Your task to perform on an android device: Open accessibility settings Image 0: 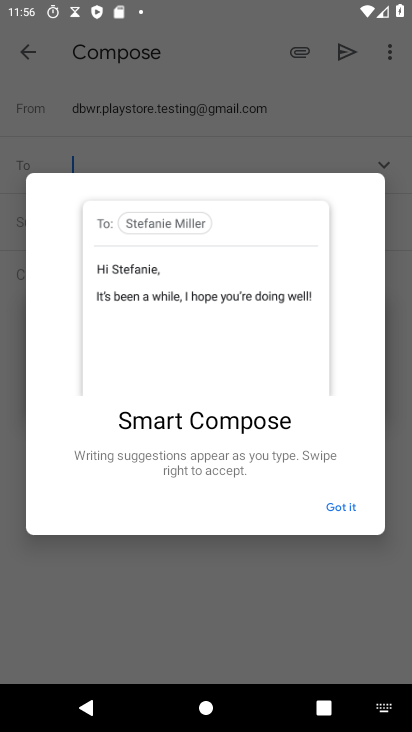
Step 0: press home button
Your task to perform on an android device: Open accessibility settings Image 1: 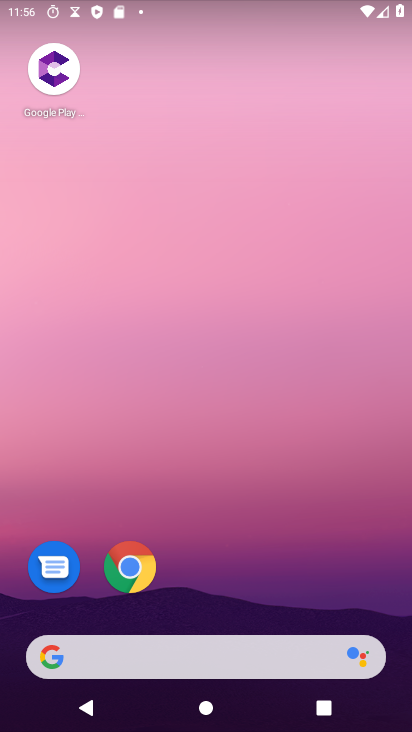
Step 1: drag from (330, 555) to (283, 106)
Your task to perform on an android device: Open accessibility settings Image 2: 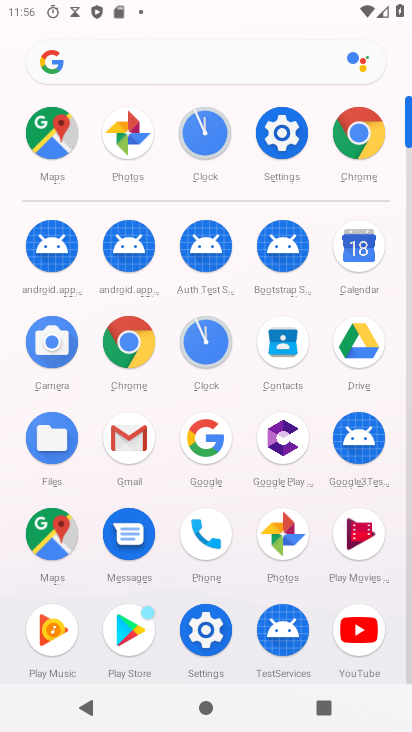
Step 2: click (282, 137)
Your task to perform on an android device: Open accessibility settings Image 3: 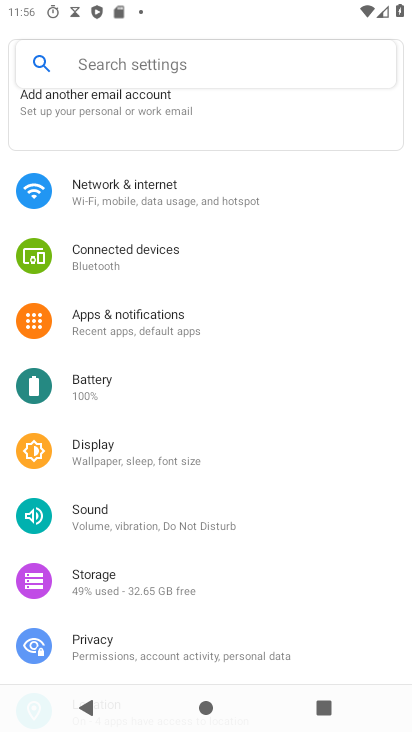
Step 3: drag from (270, 598) to (263, 294)
Your task to perform on an android device: Open accessibility settings Image 4: 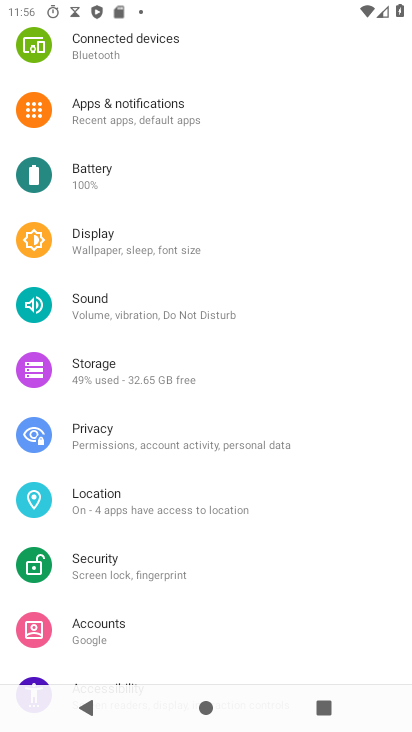
Step 4: drag from (248, 597) to (261, 221)
Your task to perform on an android device: Open accessibility settings Image 5: 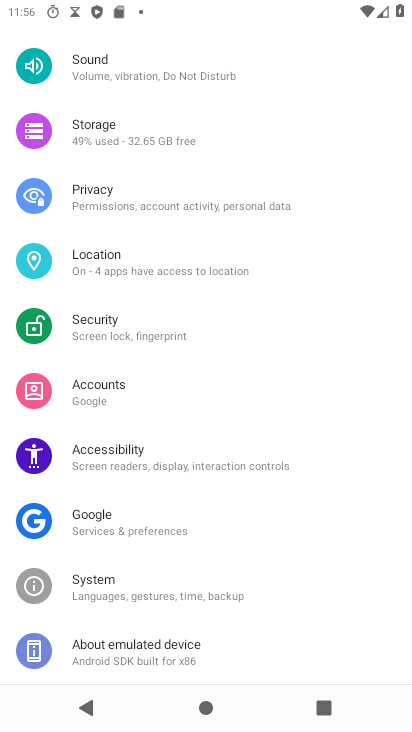
Step 5: click (196, 456)
Your task to perform on an android device: Open accessibility settings Image 6: 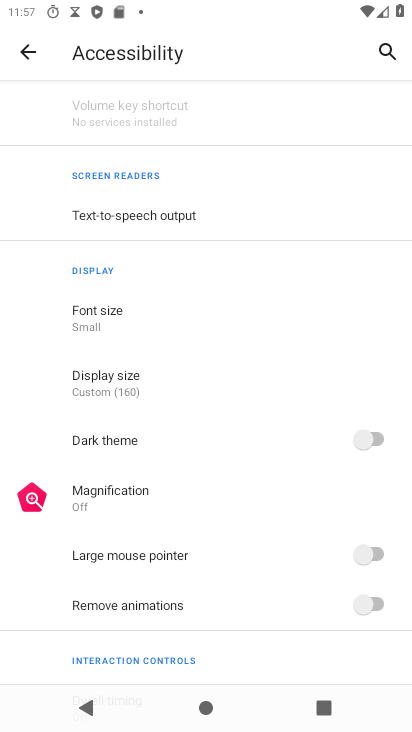
Step 6: task complete